Your task to perform on an android device: Go to internet settings Image 0: 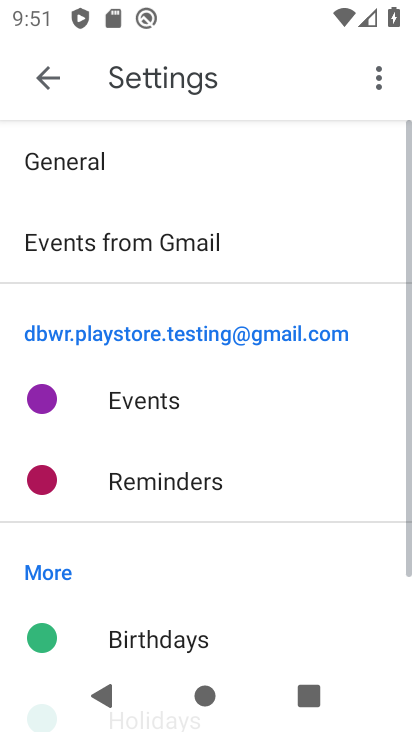
Step 0: drag from (237, 559) to (278, 191)
Your task to perform on an android device: Go to internet settings Image 1: 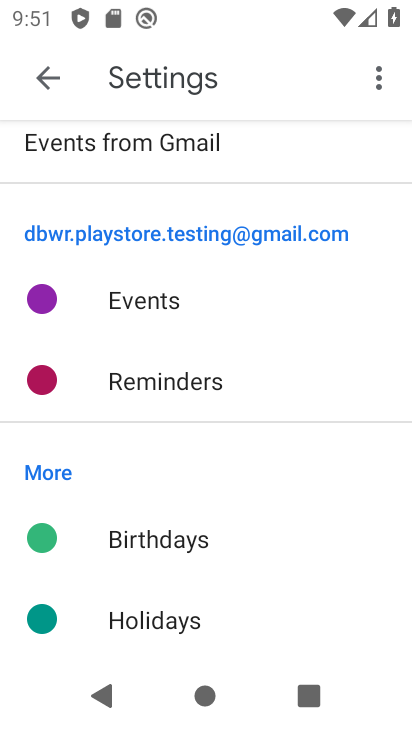
Step 1: press home button
Your task to perform on an android device: Go to internet settings Image 2: 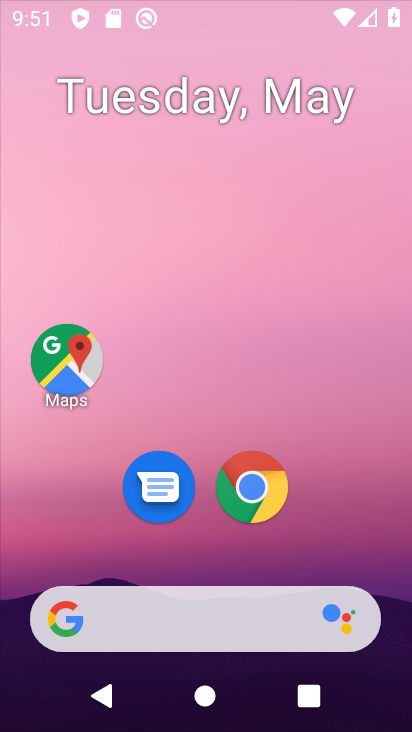
Step 2: drag from (172, 586) to (173, 104)
Your task to perform on an android device: Go to internet settings Image 3: 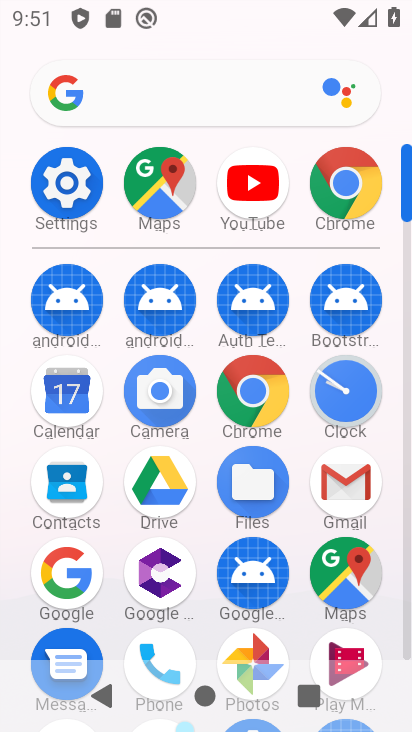
Step 3: click (65, 190)
Your task to perform on an android device: Go to internet settings Image 4: 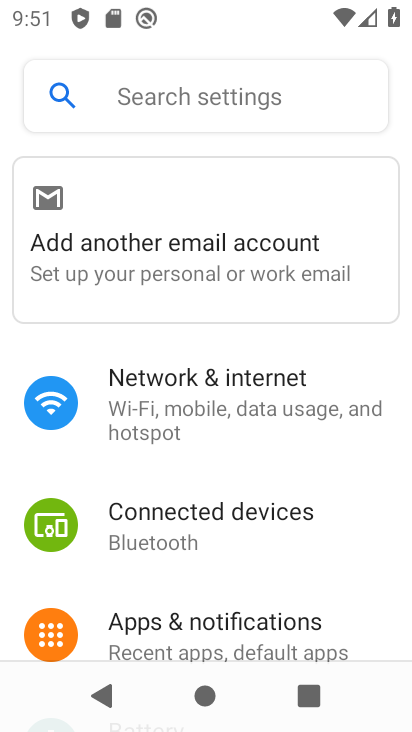
Step 4: click (205, 386)
Your task to perform on an android device: Go to internet settings Image 5: 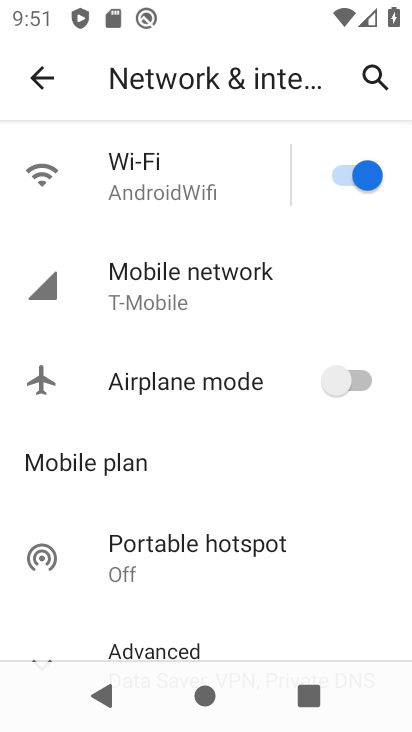
Step 5: task complete